Your task to perform on an android device: turn on airplane mode Image 0: 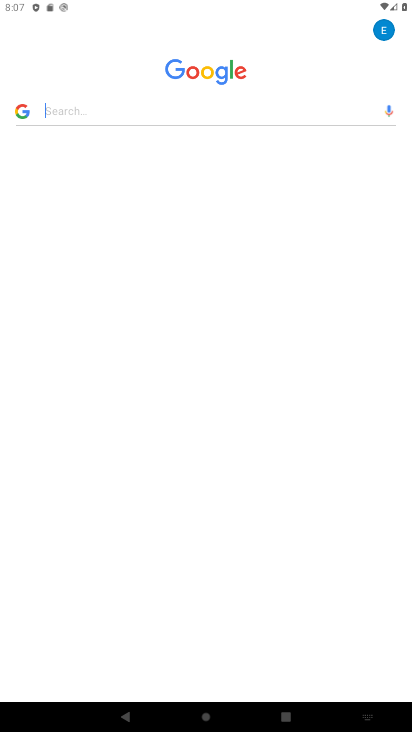
Step 0: press back button
Your task to perform on an android device: turn on airplane mode Image 1: 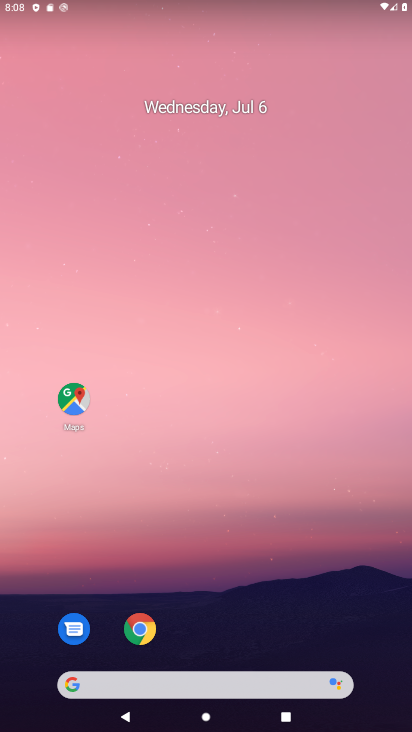
Step 1: drag from (241, 537) to (201, 252)
Your task to perform on an android device: turn on airplane mode Image 2: 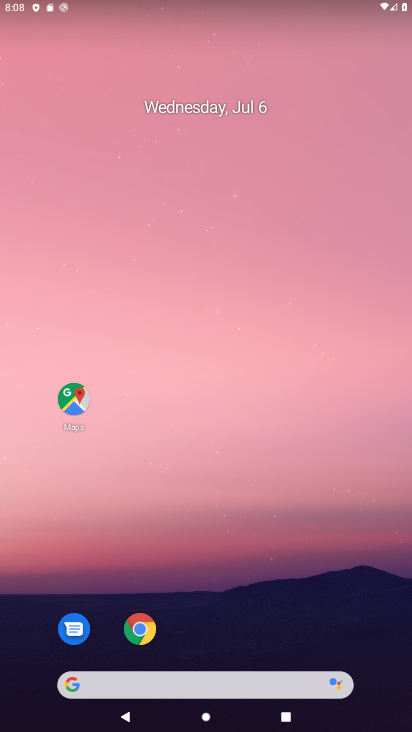
Step 2: drag from (310, 480) to (241, 319)
Your task to perform on an android device: turn on airplane mode Image 3: 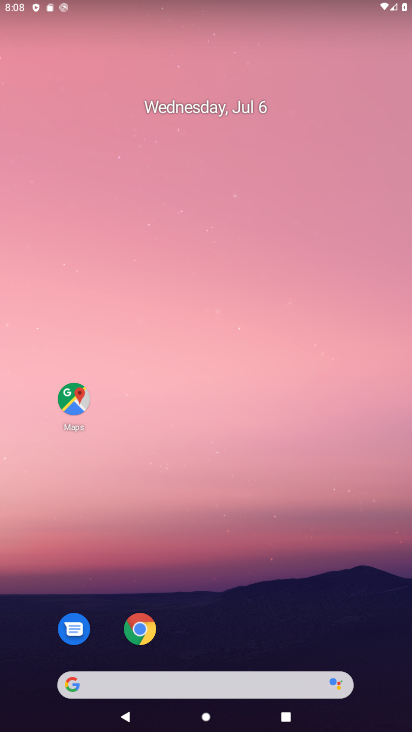
Step 3: drag from (382, 629) to (199, 86)
Your task to perform on an android device: turn on airplane mode Image 4: 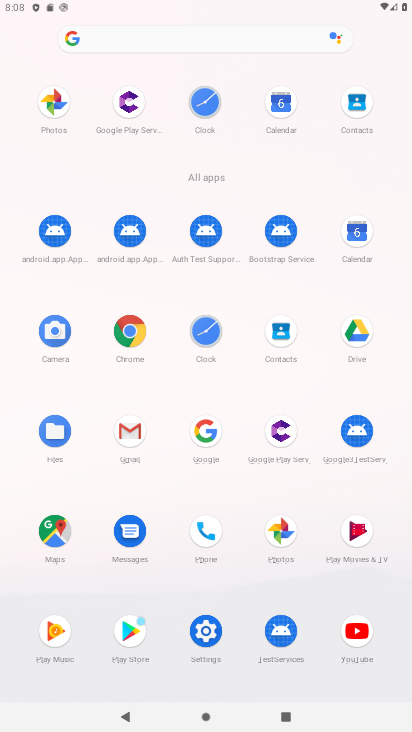
Step 4: click (213, 628)
Your task to perform on an android device: turn on airplane mode Image 5: 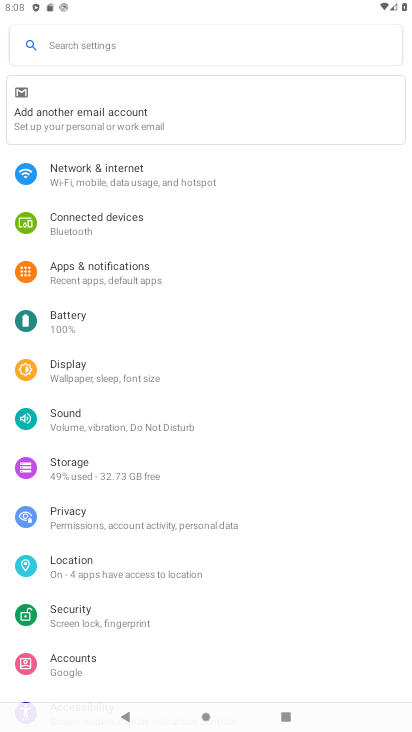
Step 5: drag from (132, 611) to (50, 205)
Your task to perform on an android device: turn on airplane mode Image 6: 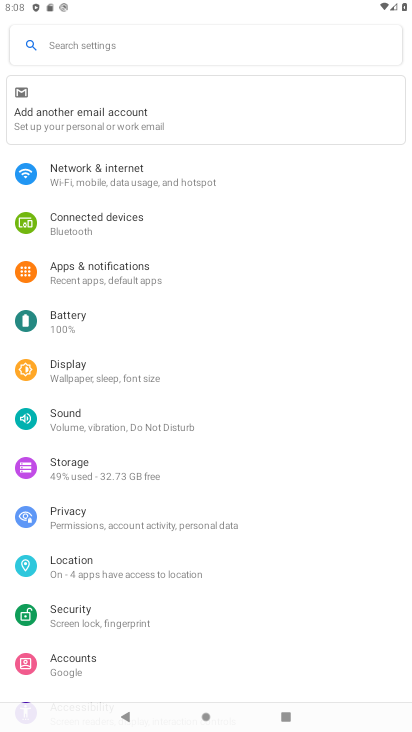
Step 6: drag from (122, 501) to (108, 216)
Your task to perform on an android device: turn on airplane mode Image 7: 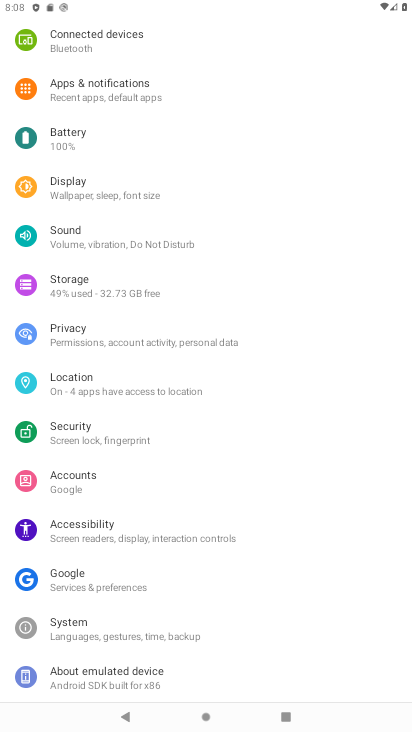
Step 7: click (166, 347)
Your task to perform on an android device: turn on airplane mode Image 8: 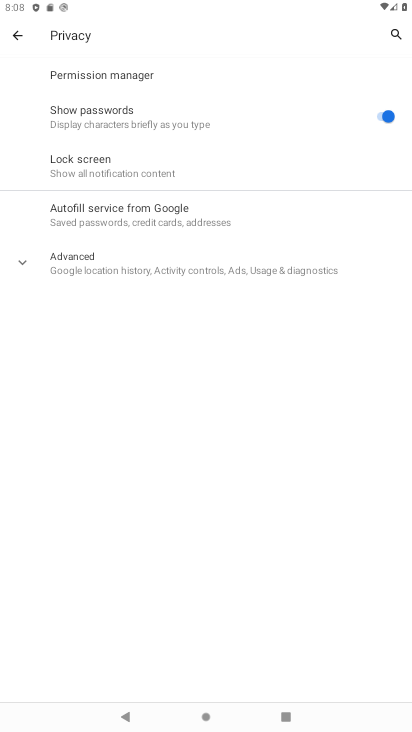
Step 8: click (86, 175)
Your task to perform on an android device: turn on airplane mode Image 9: 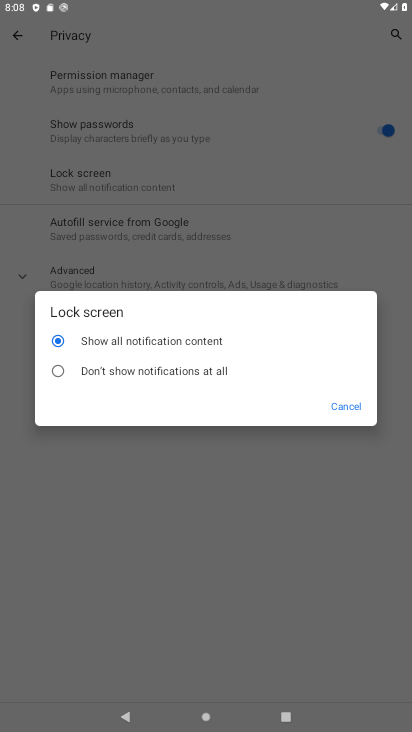
Step 9: click (241, 470)
Your task to perform on an android device: turn on airplane mode Image 10: 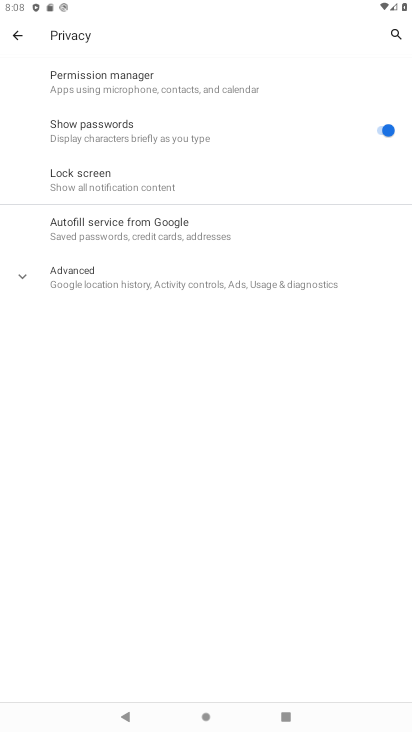
Step 10: click (17, 42)
Your task to perform on an android device: turn on airplane mode Image 11: 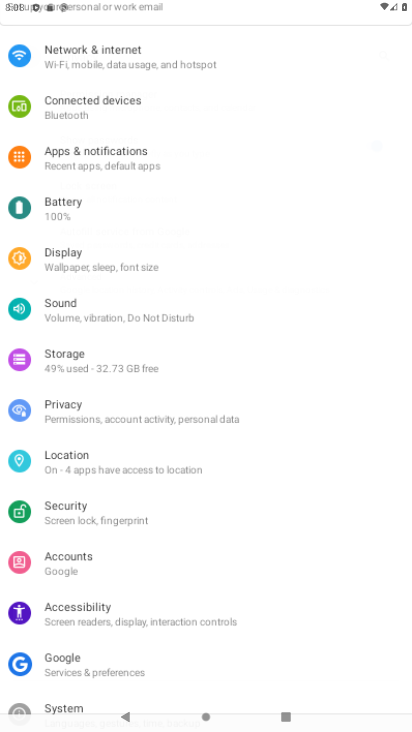
Step 11: click (12, 36)
Your task to perform on an android device: turn on airplane mode Image 12: 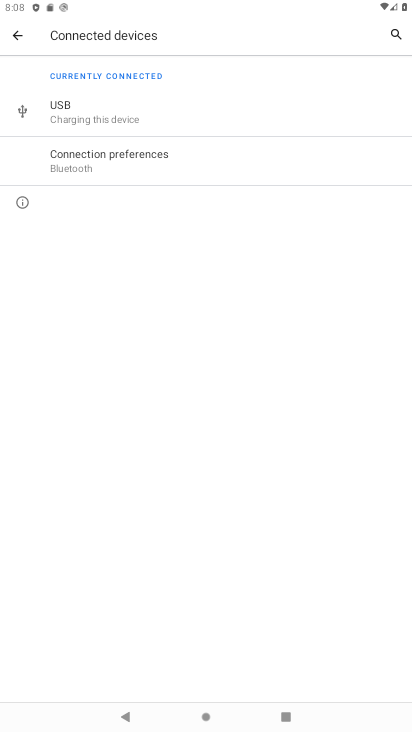
Step 12: click (19, 38)
Your task to perform on an android device: turn on airplane mode Image 13: 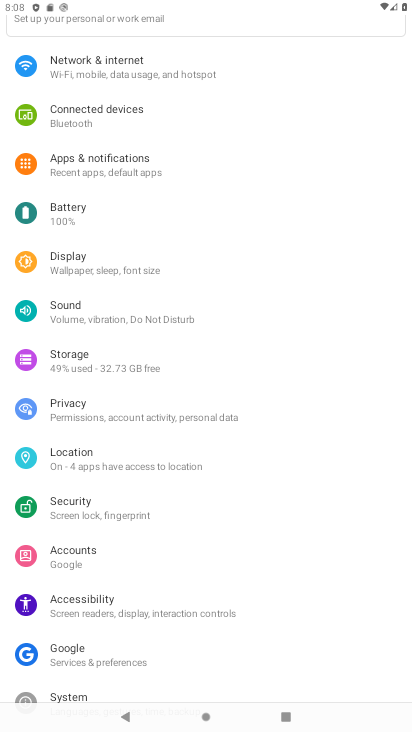
Step 13: click (93, 64)
Your task to perform on an android device: turn on airplane mode Image 14: 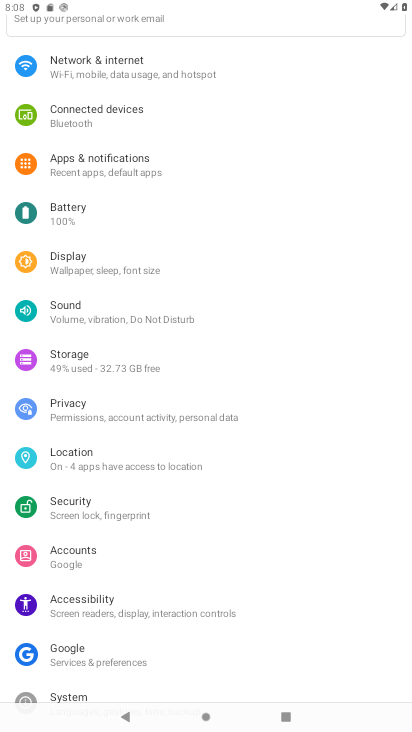
Step 14: click (90, 68)
Your task to perform on an android device: turn on airplane mode Image 15: 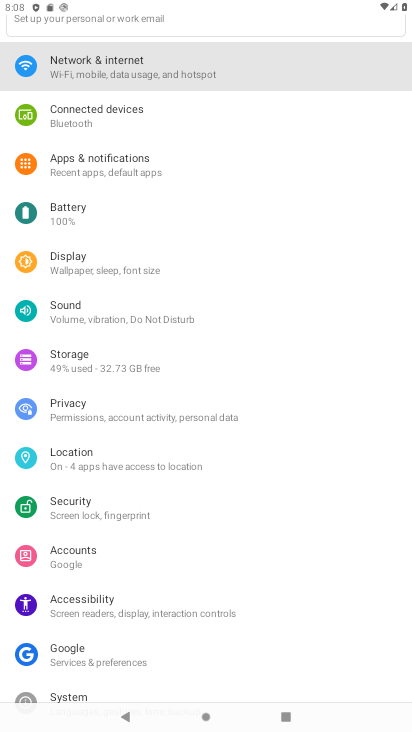
Step 15: click (85, 73)
Your task to perform on an android device: turn on airplane mode Image 16: 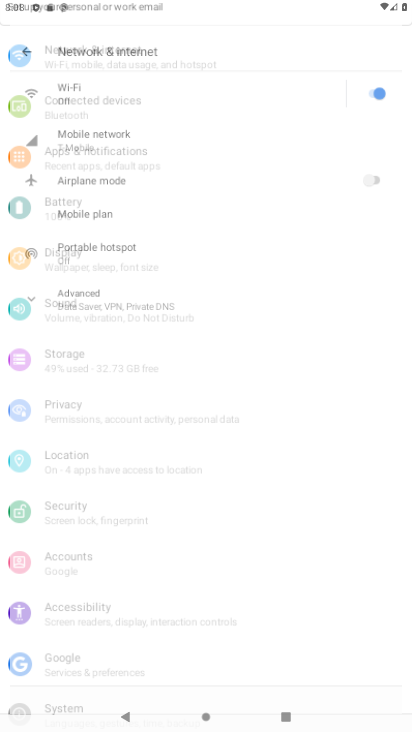
Step 16: click (84, 75)
Your task to perform on an android device: turn on airplane mode Image 17: 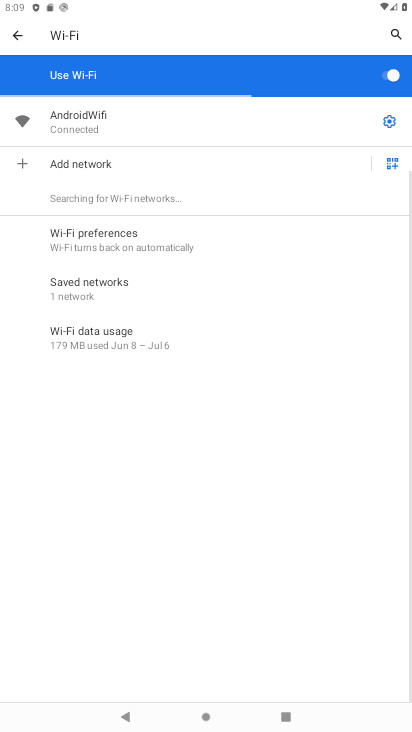
Step 17: click (17, 46)
Your task to perform on an android device: turn on airplane mode Image 18: 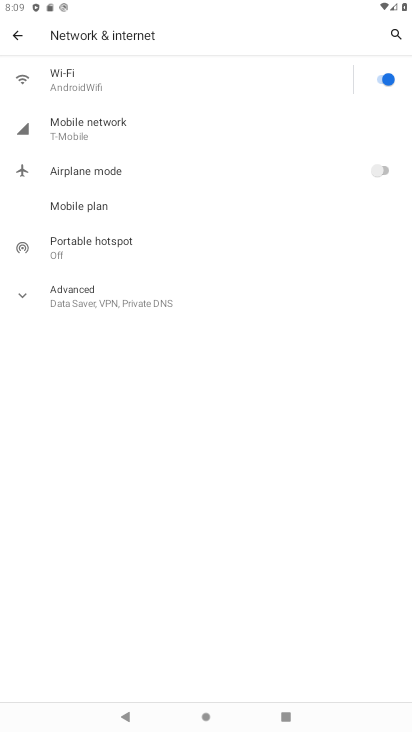
Step 18: click (376, 167)
Your task to perform on an android device: turn on airplane mode Image 19: 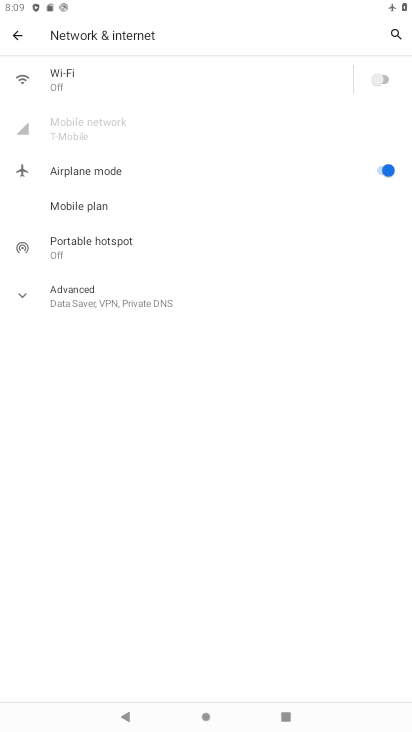
Step 19: task complete